Your task to perform on an android device: Add razer nari to the cart on amazon Image 0: 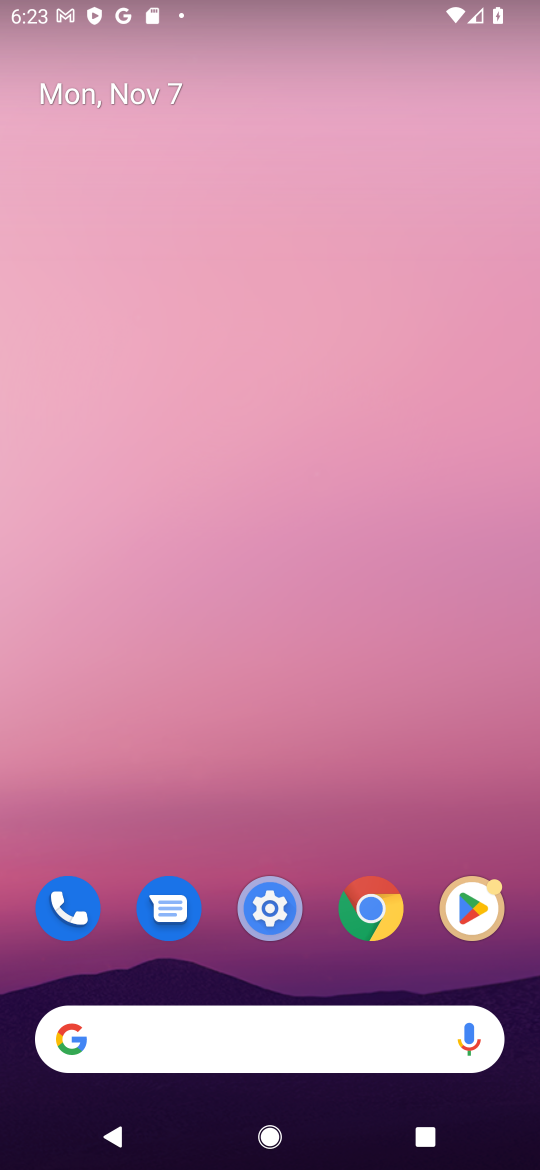
Step 0: click (343, 1059)
Your task to perform on an android device: Add razer nari to the cart on amazon Image 1: 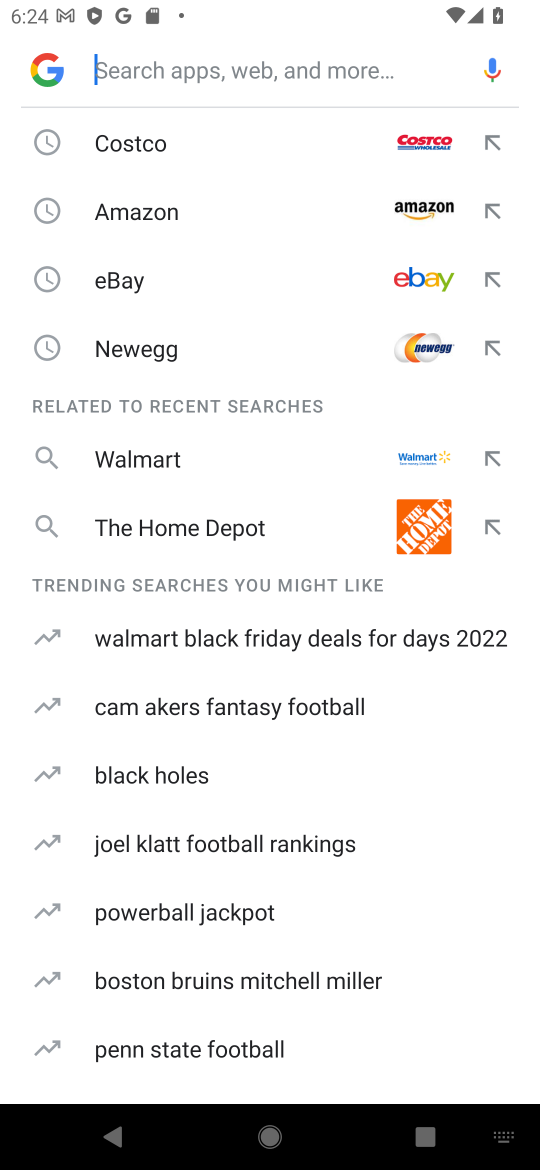
Step 1: click (207, 217)
Your task to perform on an android device: Add razer nari to the cart on amazon Image 2: 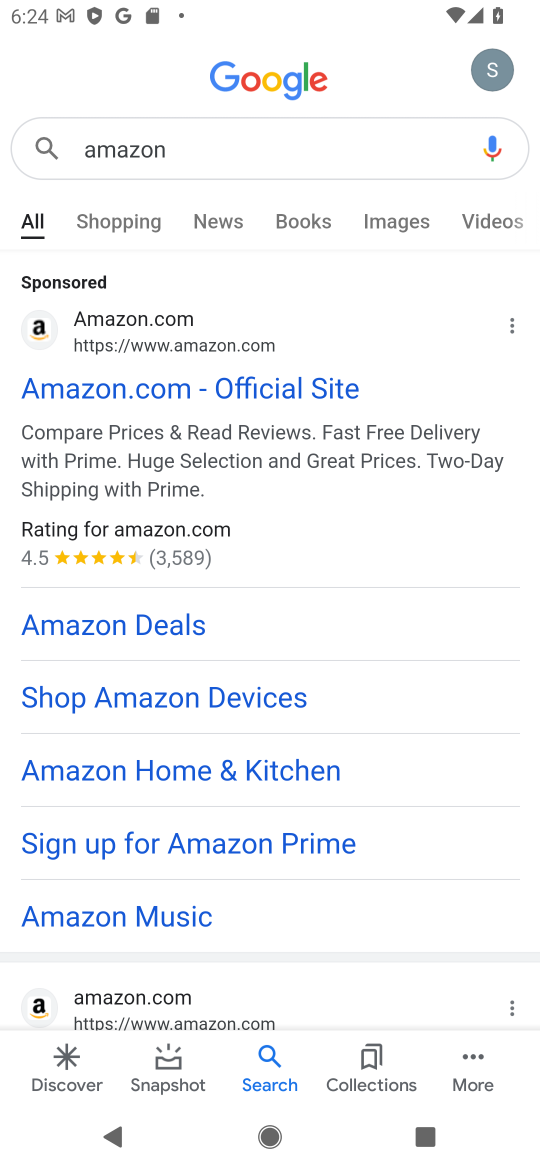
Step 2: click (148, 422)
Your task to perform on an android device: Add razer nari to the cart on amazon Image 3: 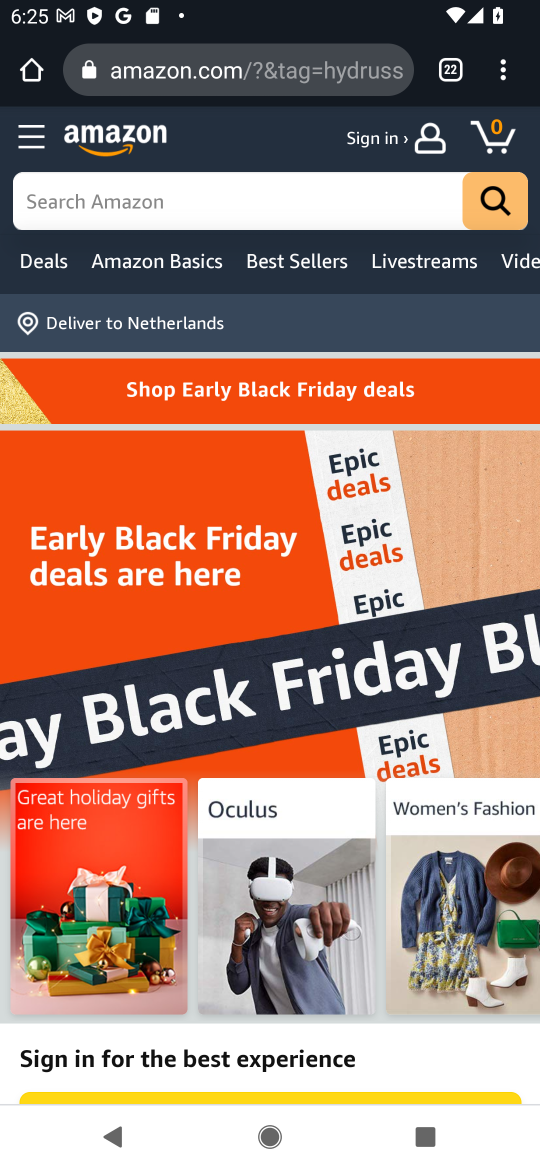
Step 3: click (142, 209)
Your task to perform on an android device: Add razer nari to the cart on amazon Image 4: 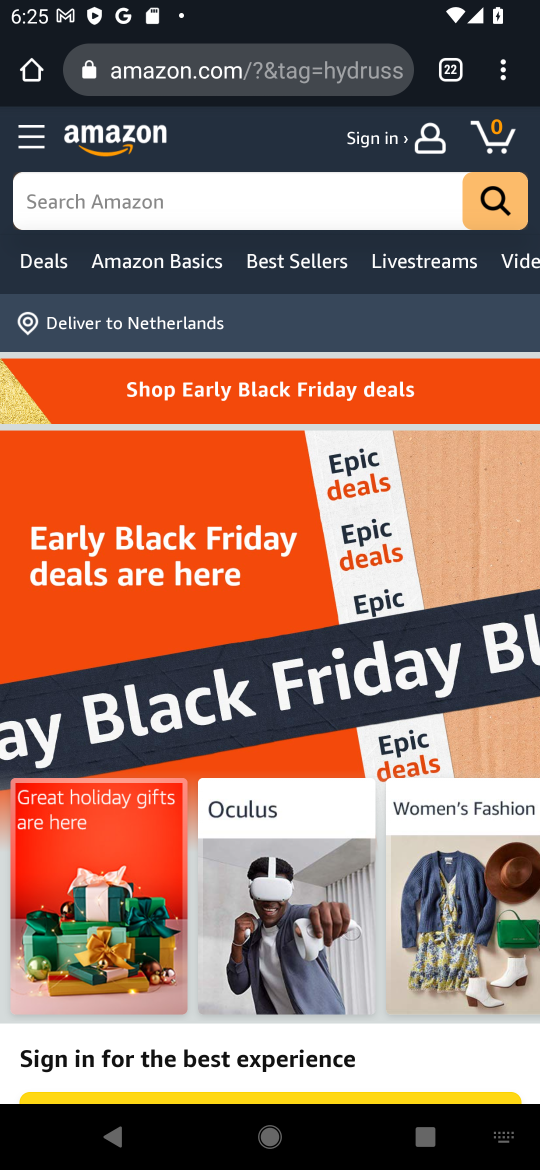
Step 4: type "razer nari"
Your task to perform on an android device: Add razer nari to the cart on amazon Image 5: 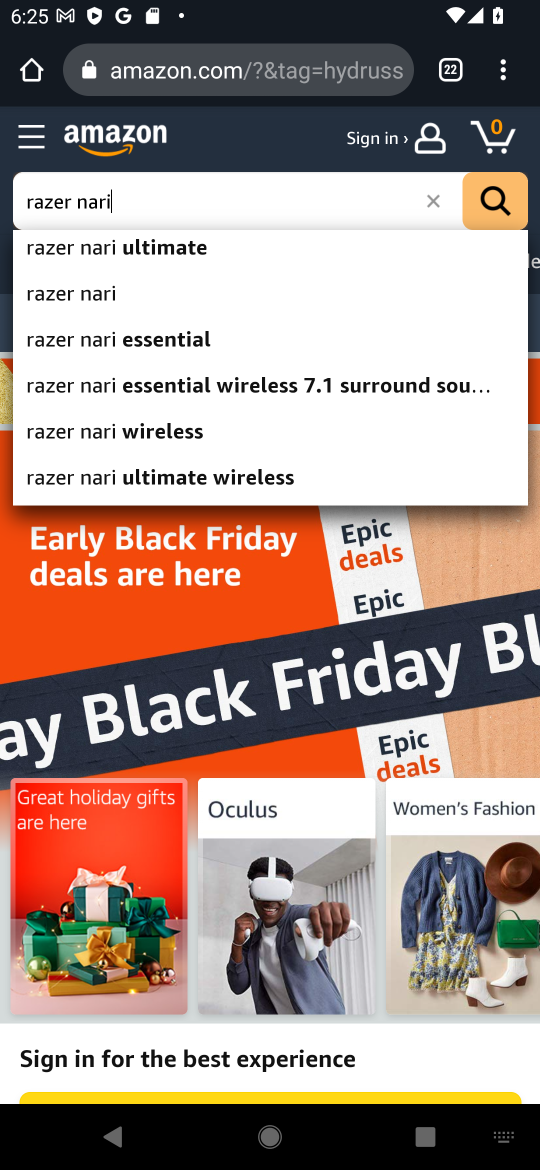
Step 5: click (77, 237)
Your task to perform on an android device: Add razer nari to the cart on amazon Image 6: 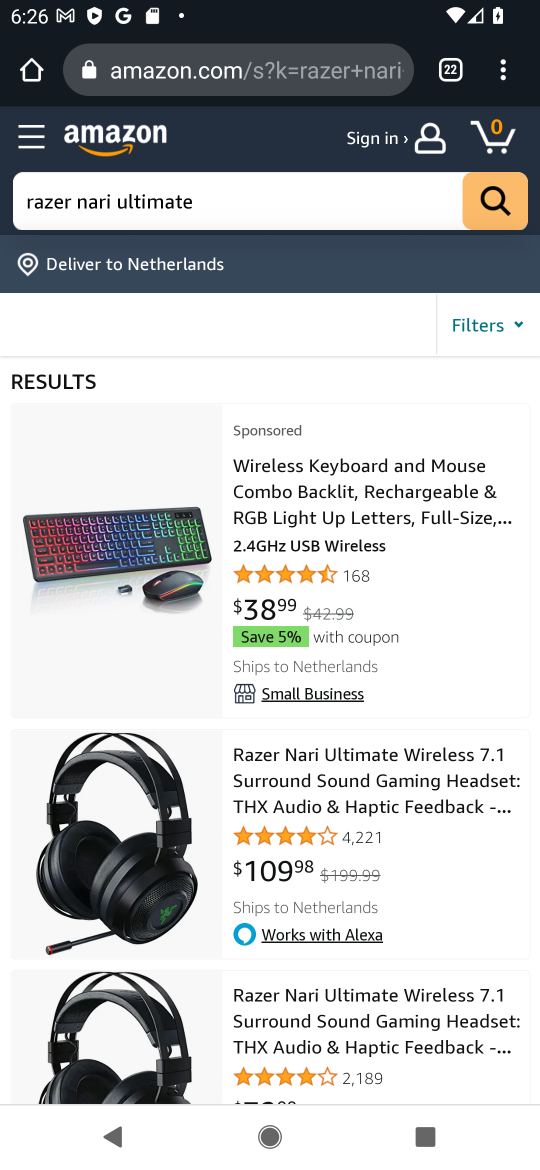
Step 6: task complete